Your task to perform on an android device: Open calendar and show me the second week of next month Image 0: 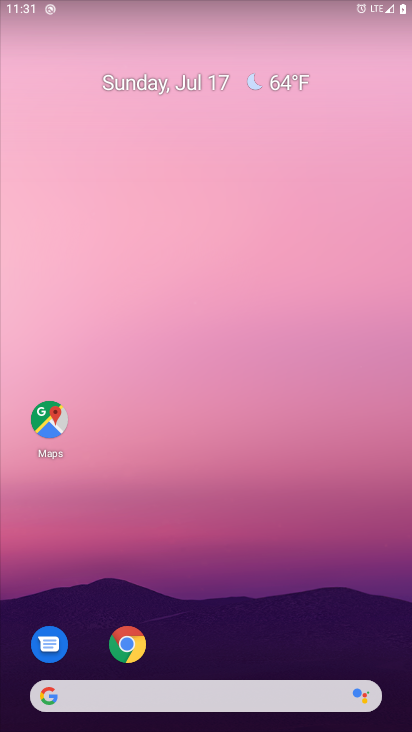
Step 0: press home button
Your task to perform on an android device: Open calendar and show me the second week of next month Image 1: 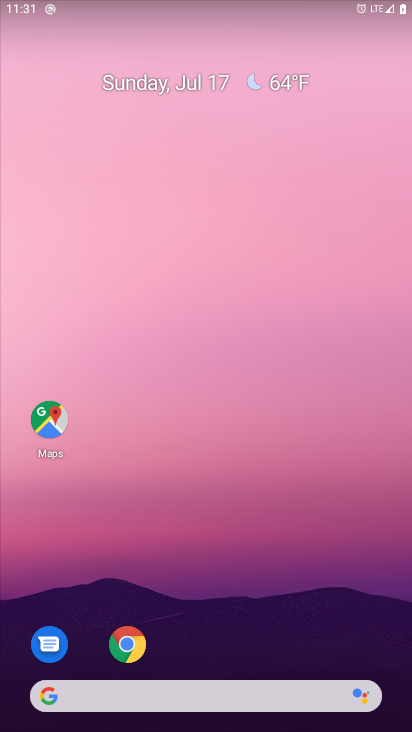
Step 1: press home button
Your task to perform on an android device: Open calendar and show me the second week of next month Image 2: 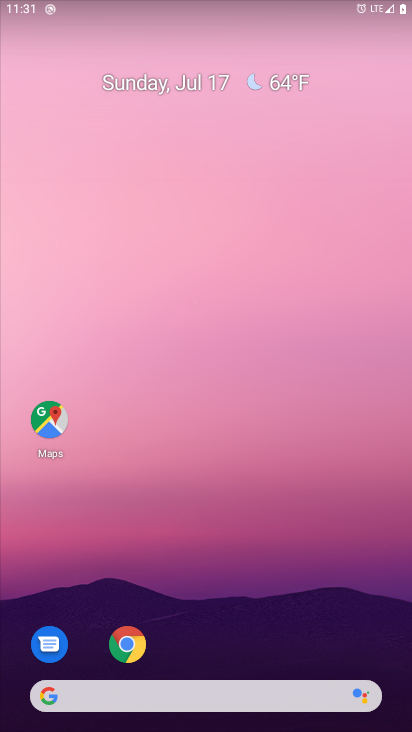
Step 2: drag from (315, 558) to (318, 143)
Your task to perform on an android device: Open calendar and show me the second week of next month Image 3: 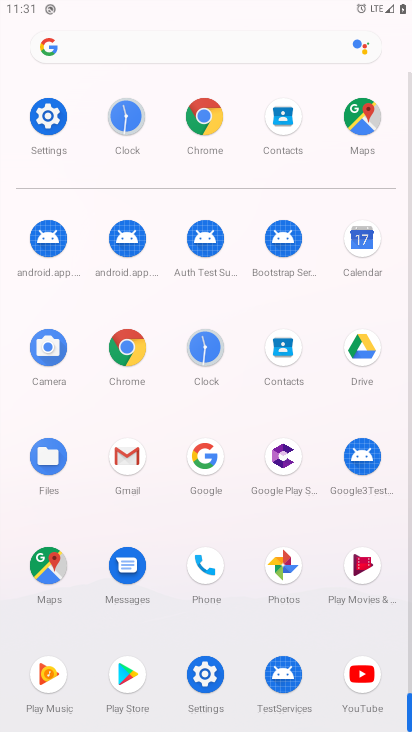
Step 3: click (358, 236)
Your task to perform on an android device: Open calendar and show me the second week of next month Image 4: 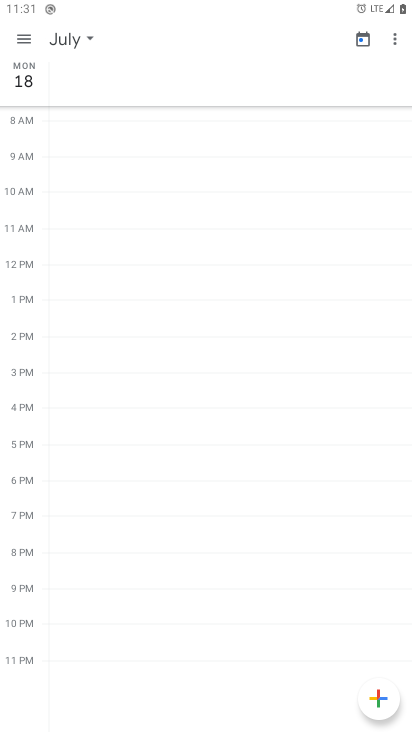
Step 4: click (13, 39)
Your task to perform on an android device: Open calendar and show me the second week of next month Image 5: 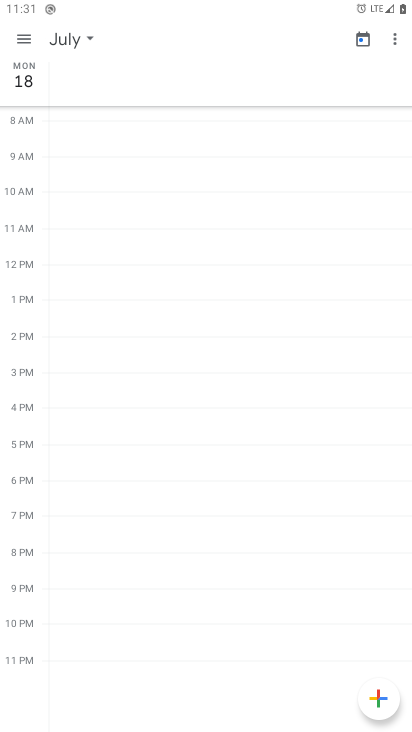
Step 5: click (22, 39)
Your task to perform on an android device: Open calendar and show me the second week of next month Image 6: 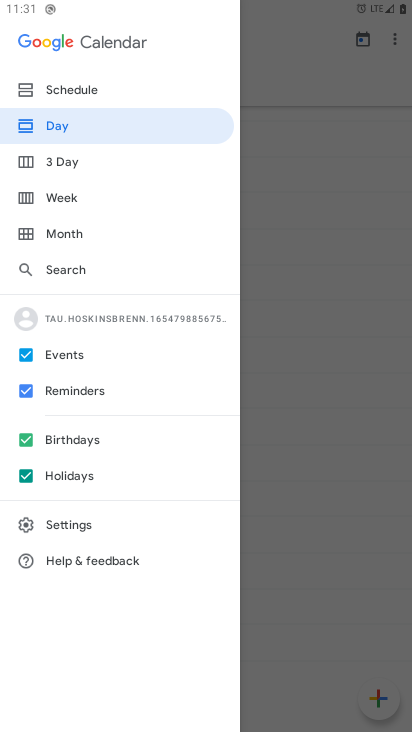
Step 6: click (82, 229)
Your task to perform on an android device: Open calendar and show me the second week of next month Image 7: 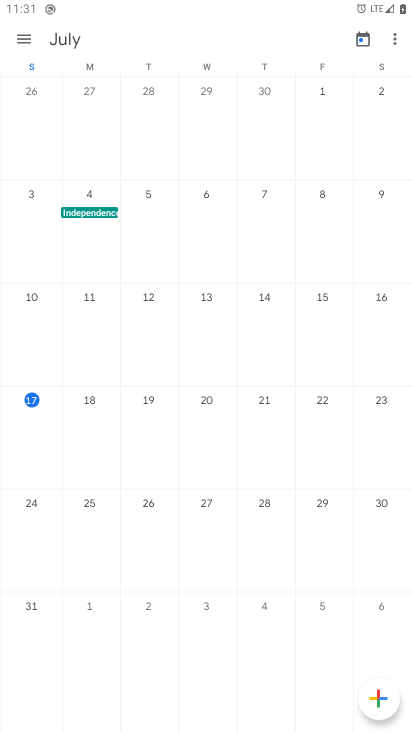
Step 7: task complete